Your task to perform on an android device: What is the recent news? Image 0: 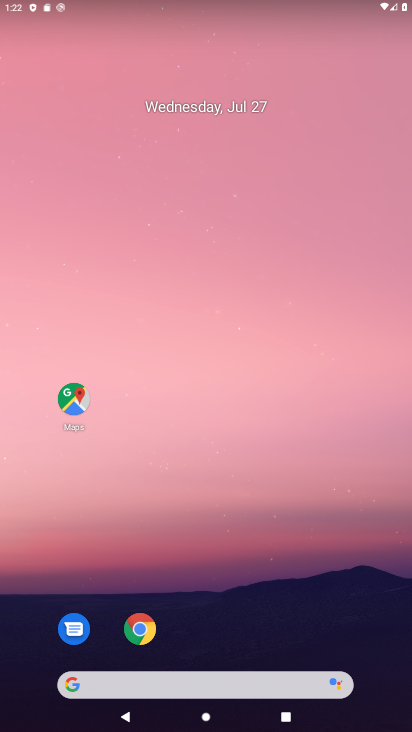
Step 0: press home button
Your task to perform on an android device: What is the recent news? Image 1: 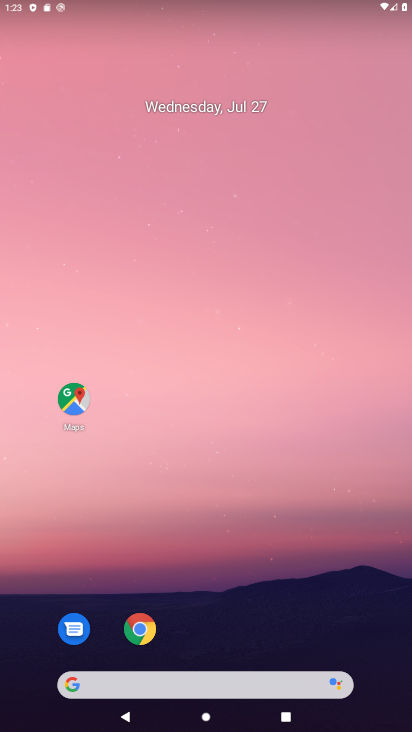
Step 1: click (75, 687)
Your task to perform on an android device: What is the recent news? Image 2: 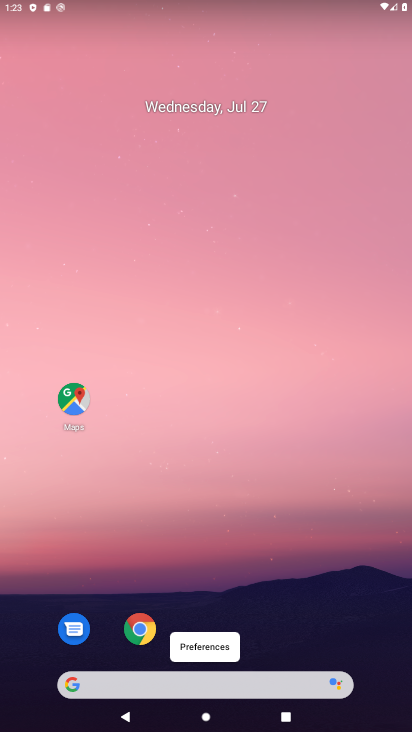
Step 2: click (76, 689)
Your task to perform on an android device: What is the recent news? Image 3: 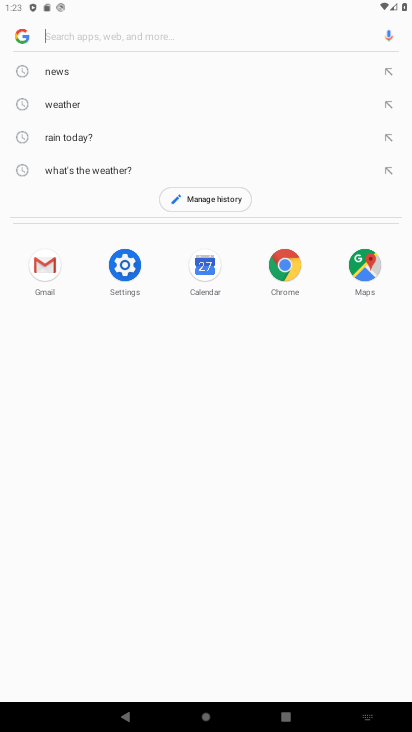
Step 3: type "recent news?"
Your task to perform on an android device: What is the recent news? Image 4: 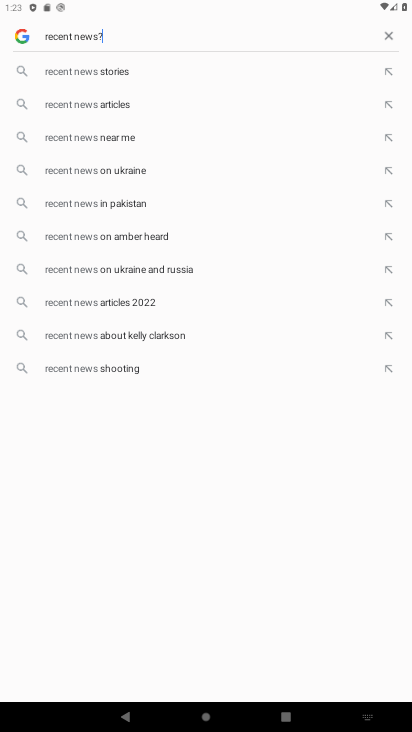
Step 4: press enter
Your task to perform on an android device: What is the recent news? Image 5: 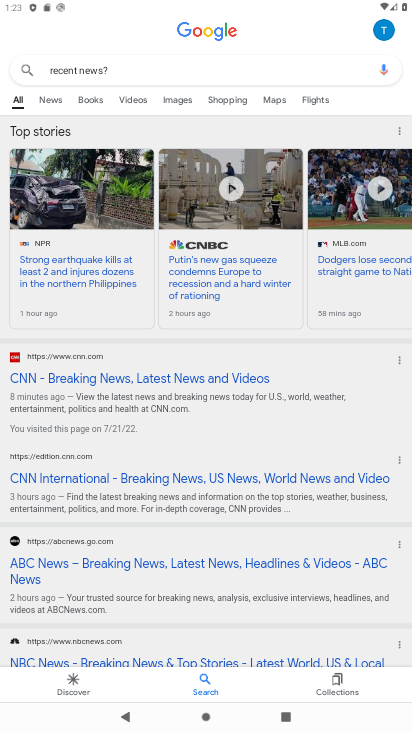
Step 5: task complete